Your task to perform on an android device: find which apps use the phone's location Image 0: 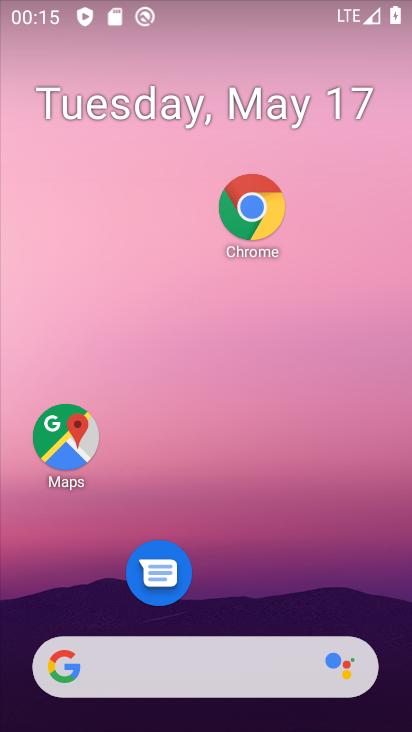
Step 0: press home button
Your task to perform on an android device: find which apps use the phone's location Image 1: 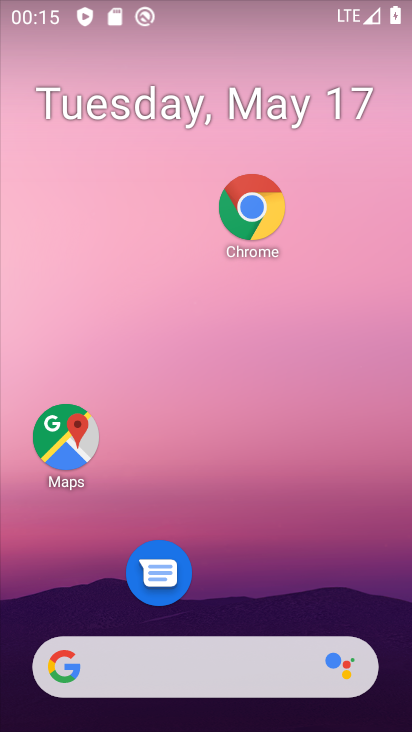
Step 1: drag from (191, 717) to (216, 155)
Your task to perform on an android device: find which apps use the phone's location Image 2: 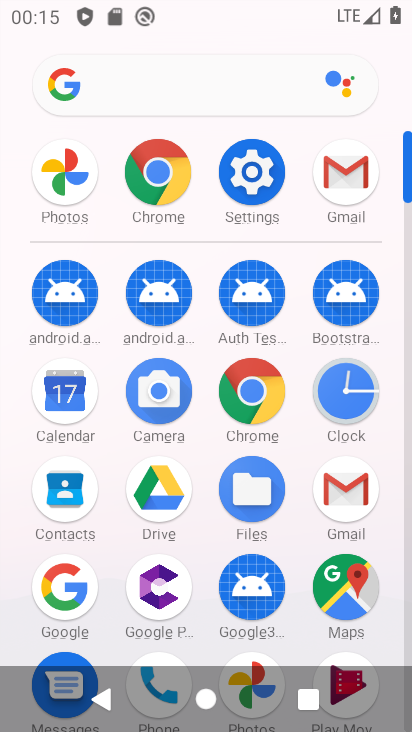
Step 2: click (245, 175)
Your task to perform on an android device: find which apps use the phone's location Image 3: 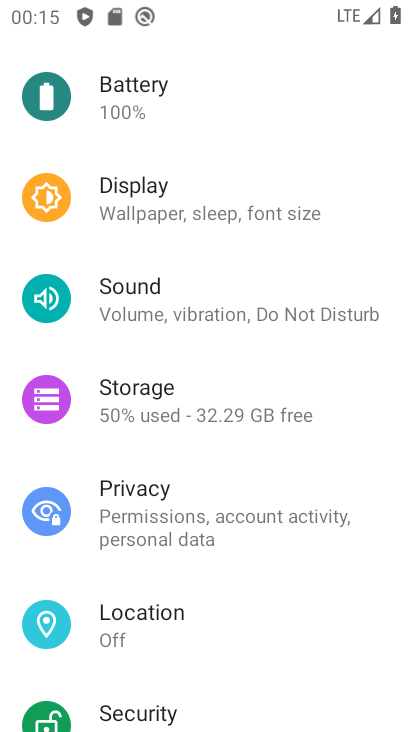
Step 3: click (224, 637)
Your task to perform on an android device: find which apps use the phone's location Image 4: 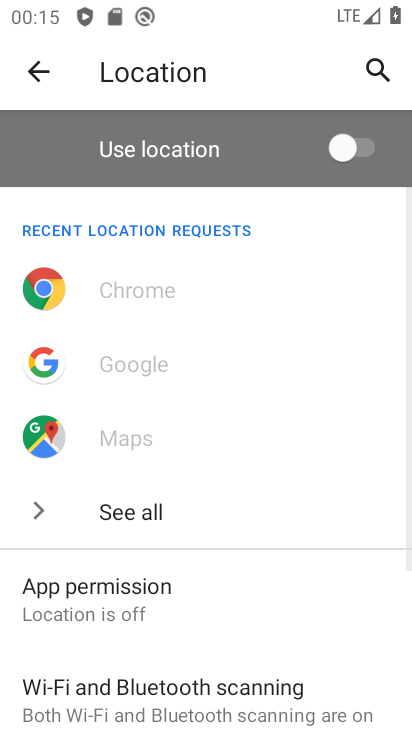
Step 4: click (160, 597)
Your task to perform on an android device: find which apps use the phone's location Image 5: 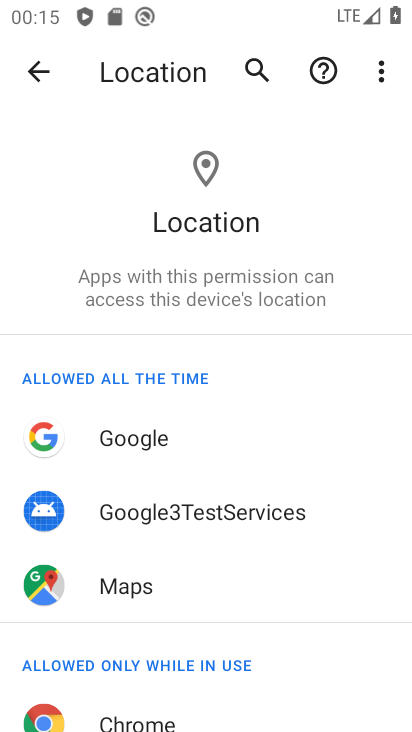
Step 5: task complete